Your task to perform on an android device: Open calendar and show me the first week of next month Image 0: 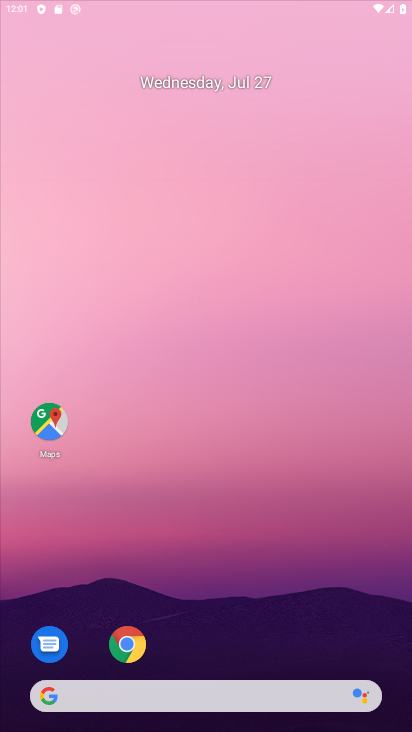
Step 0: press home button
Your task to perform on an android device: Open calendar and show me the first week of next month Image 1: 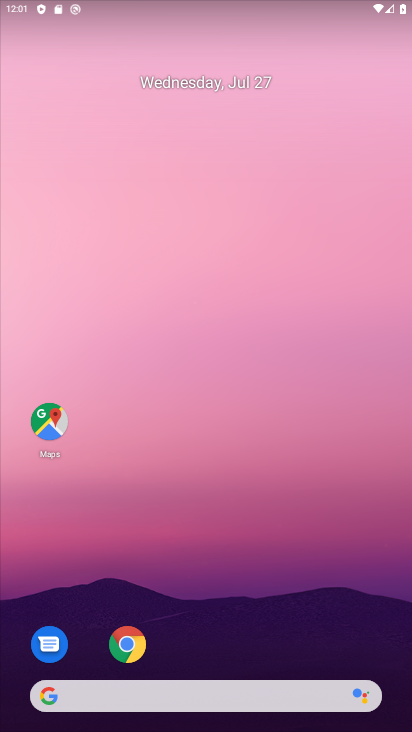
Step 1: drag from (357, 628) to (372, 354)
Your task to perform on an android device: Open calendar and show me the first week of next month Image 2: 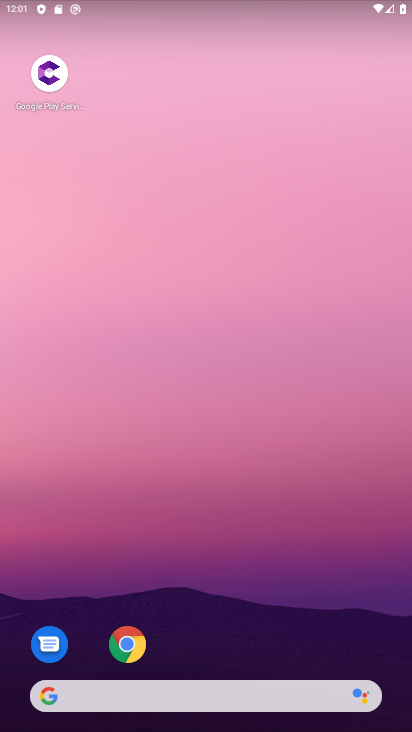
Step 2: drag from (279, 580) to (236, 206)
Your task to perform on an android device: Open calendar and show me the first week of next month Image 3: 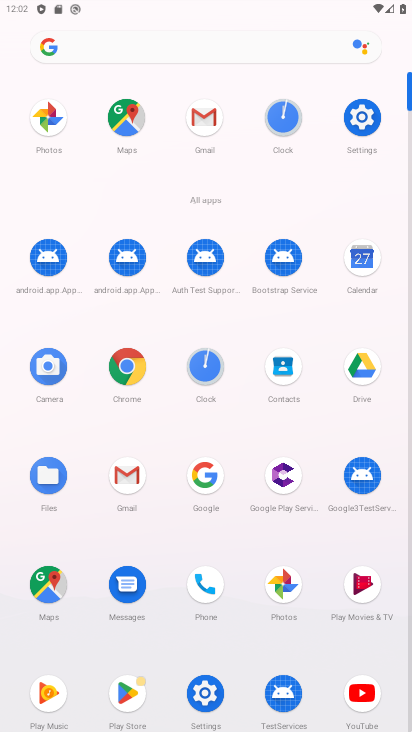
Step 3: click (349, 237)
Your task to perform on an android device: Open calendar and show me the first week of next month Image 4: 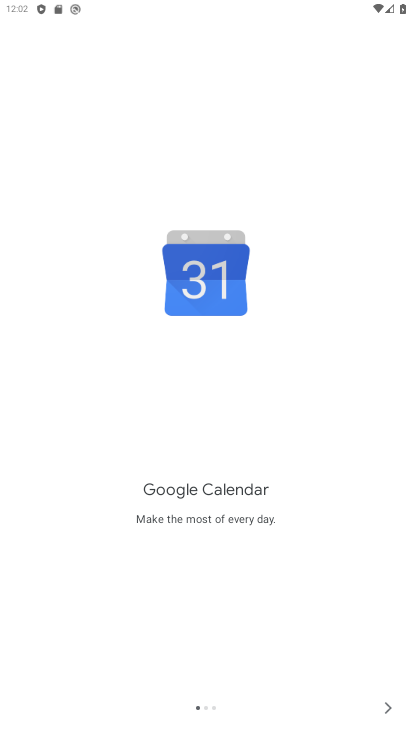
Step 4: click (388, 700)
Your task to perform on an android device: Open calendar and show me the first week of next month Image 5: 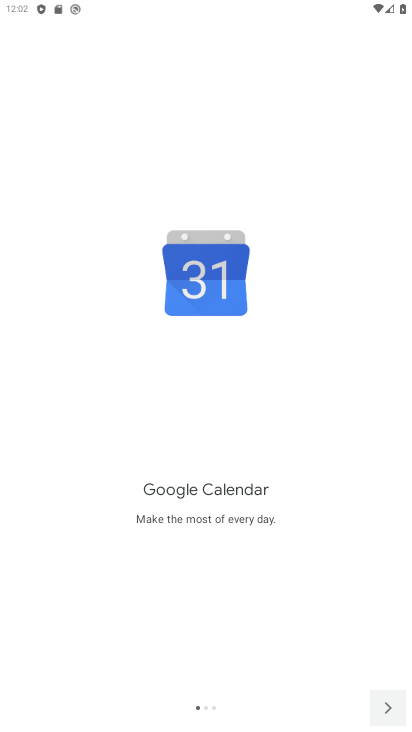
Step 5: click (388, 700)
Your task to perform on an android device: Open calendar and show me the first week of next month Image 6: 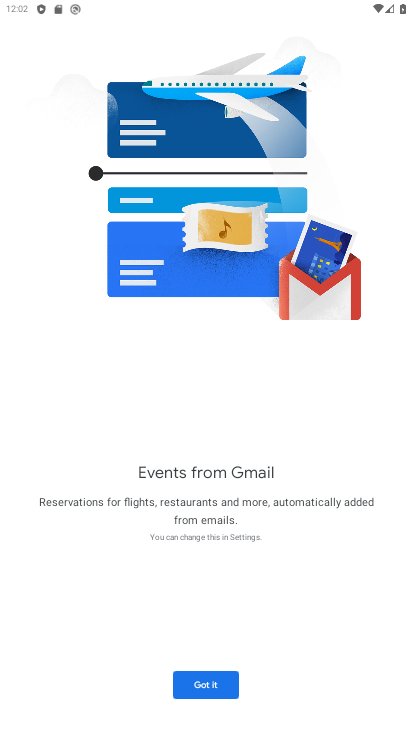
Step 6: click (209, 686)
Your task to perform on an android device: Open calendar and show me the first week of next month Image 7: 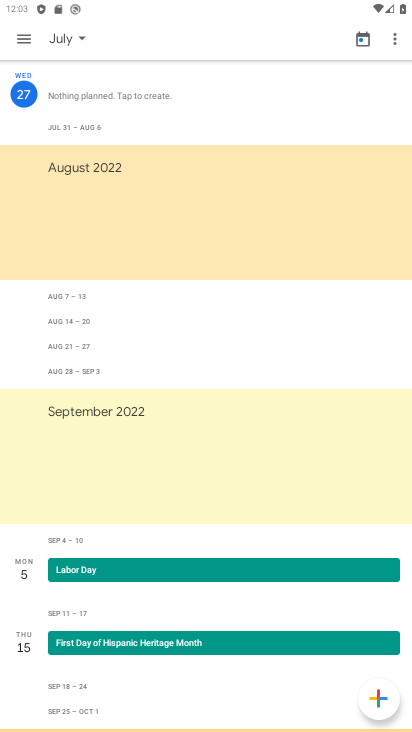
Step 7: click (73, 41)
Your task to perform on an android device: Open calendar and show me the first week of next month Image 8: 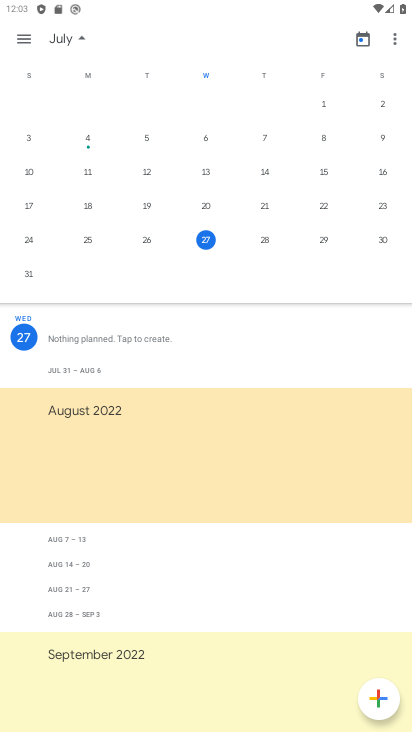
Step 8: task complete